Your task to perform on an android device: Open the stopwatch Image 0: 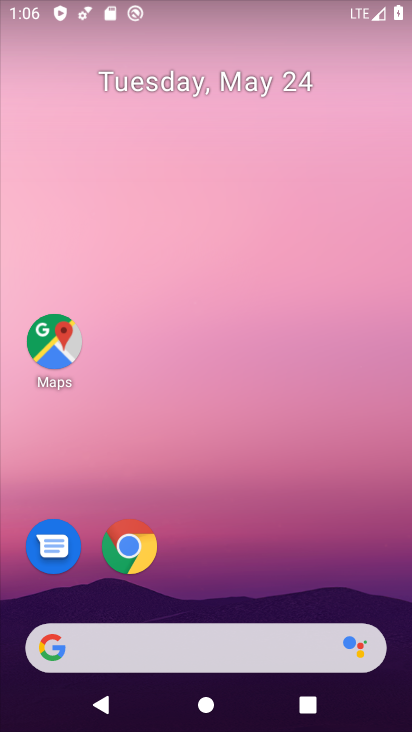
Step 0: drag from (225, 603) to (234, 37)
Your task to perform on an android device: Open the stopwatch Image 1: 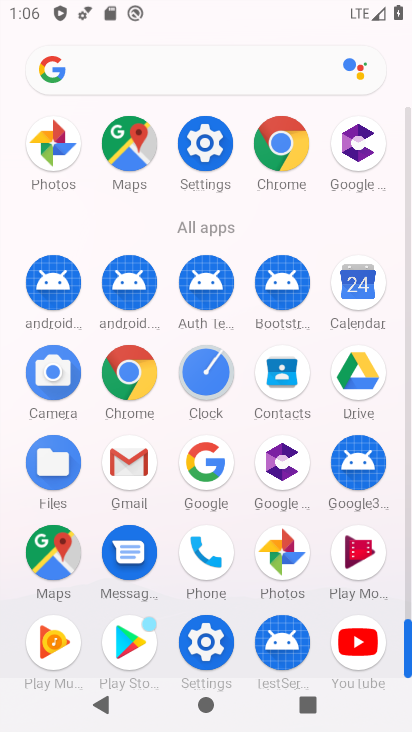
Step 1: drag from (240, 630) to (272, 227)
Your task to perform on an android device: Open the stopwatch Image 2: 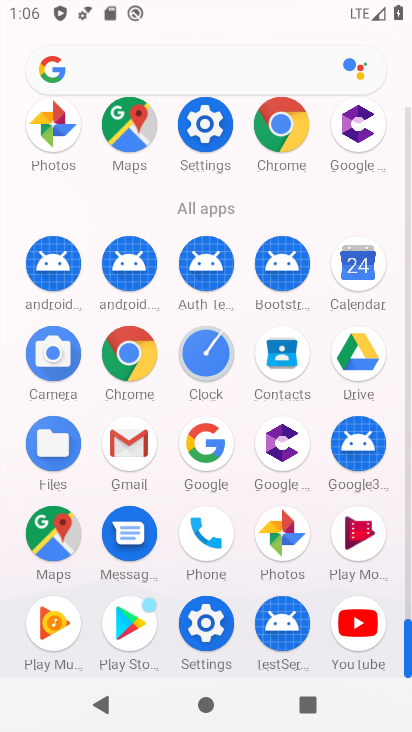
Step 2: click (199, 346)
Your task to perform on an android device: Open the stopwatch Image 3: 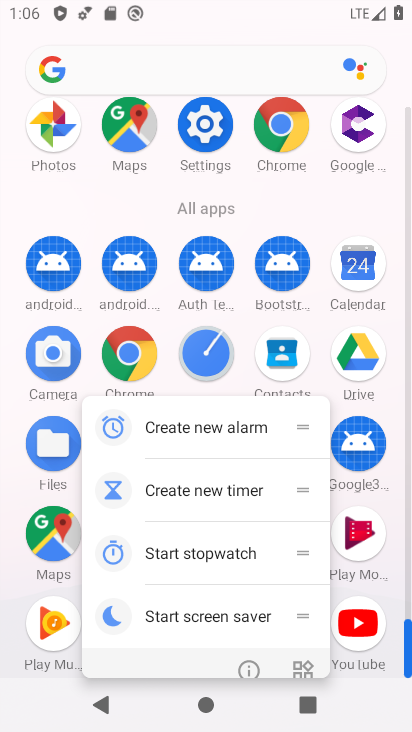
Step 3: click (253, 660)
Your task to perform on an android device: Open the stopwatch Image 4: 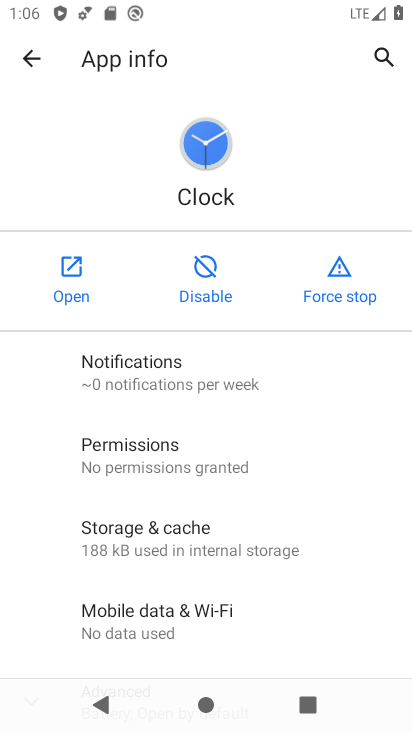
Step 4: click (80, 283)
Your task to perform on an android device: Open the stopwatch Image 5: 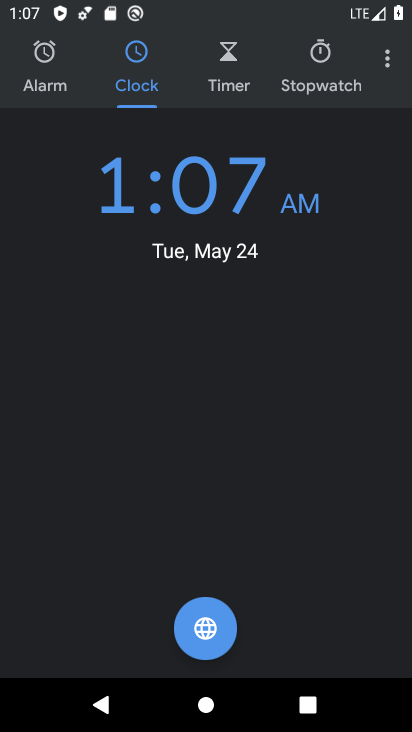
Step 5: drag from (251, 491) to (289, 235)
Your task to perform on an android device: Open the stopwatch Image 6: 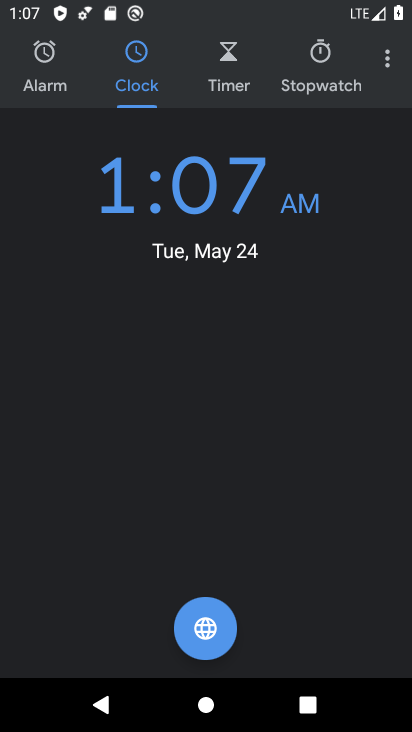
Step 6: click (324, 87)
Your task to perform on an android device: Open the stopwatch Image 7: 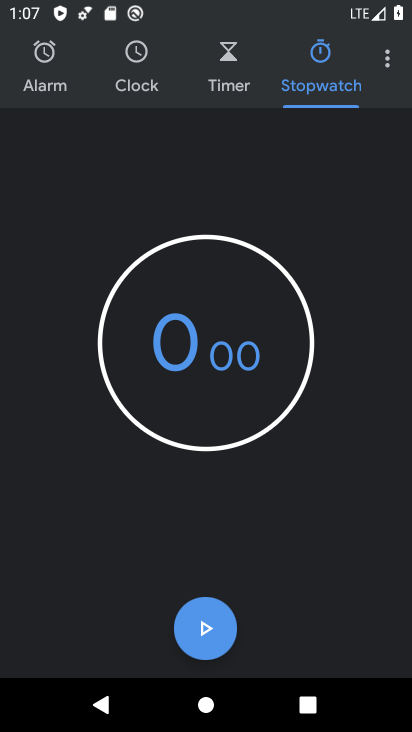
Step 7: click (198, 624)
Your task to perform on an android device: Open the stopwatch Image 8: 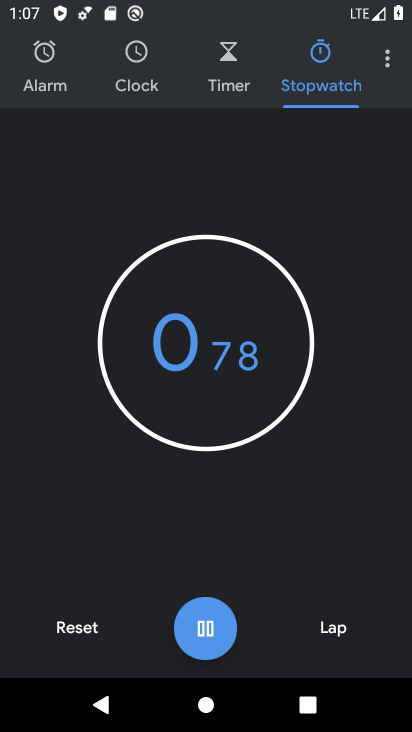
Step 8: task complete